Your task to perform on an android device: Go to Android settings Image 0: 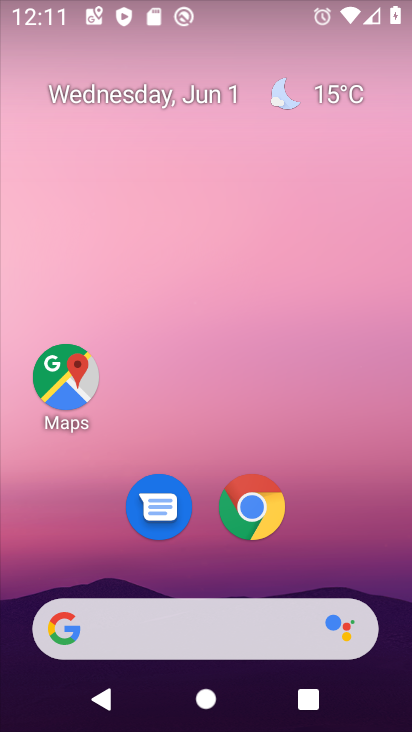
Step 0: drag from (328, 528) to (221, 95)
Your task to perform on an android device: Go to Android settings Image 1: 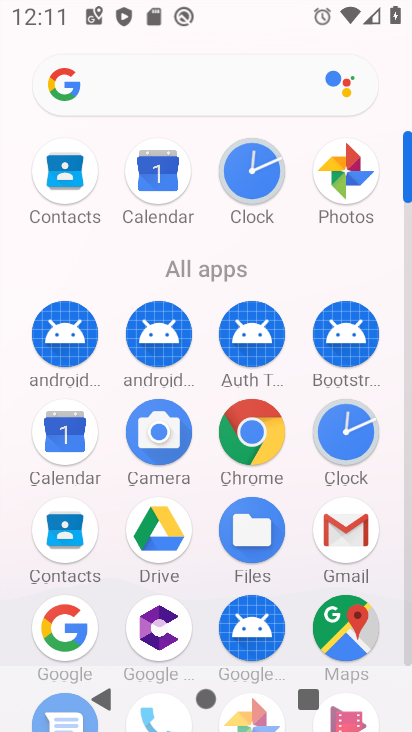
Step 1: drag from (297, 499) to (310, 303)
Your task to perform on an android device: Go to Android settings Image 2: 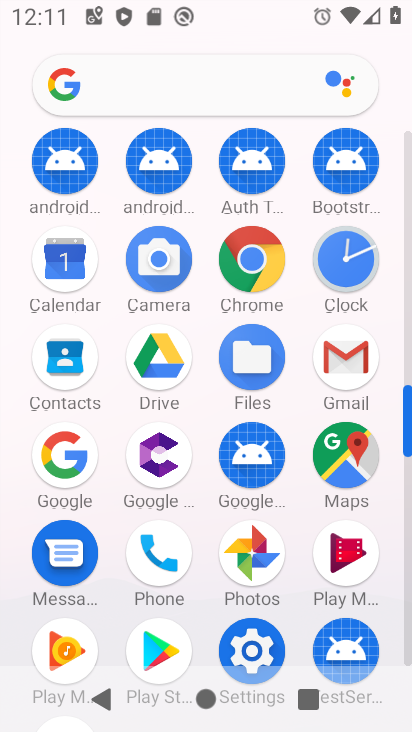
Step 2: drag from (202, 415) to (195, 216)
Your task to perform on an android device: Go to Android settings Image 3: 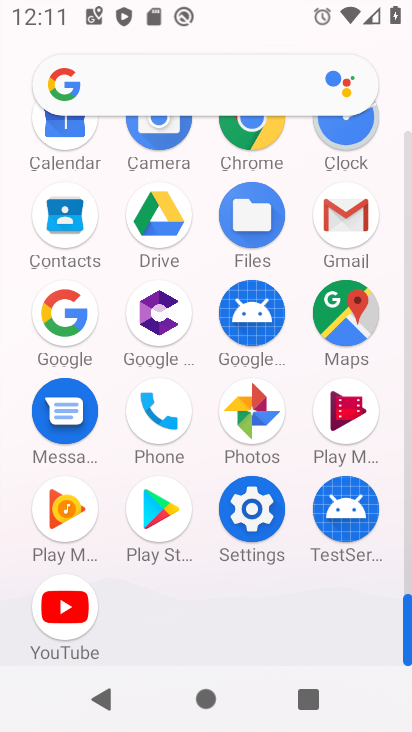
Step 3: click (251, 505)
Your task to perform on an android device: Go to Android settings Image 4: 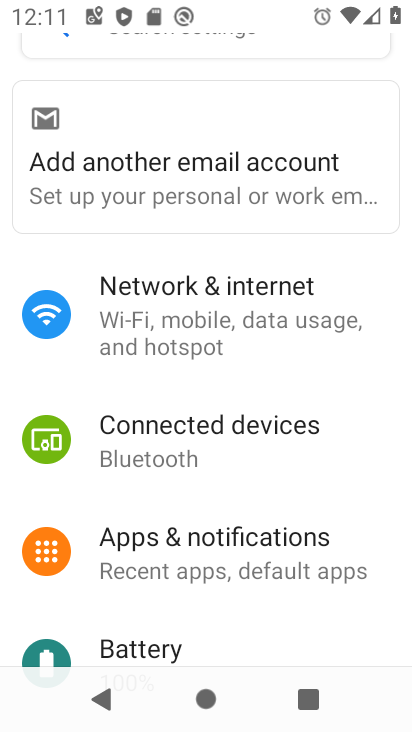
Step 4: task complete